Your task to perform on an android device: Go to calendar. Show me events next week Image 0: 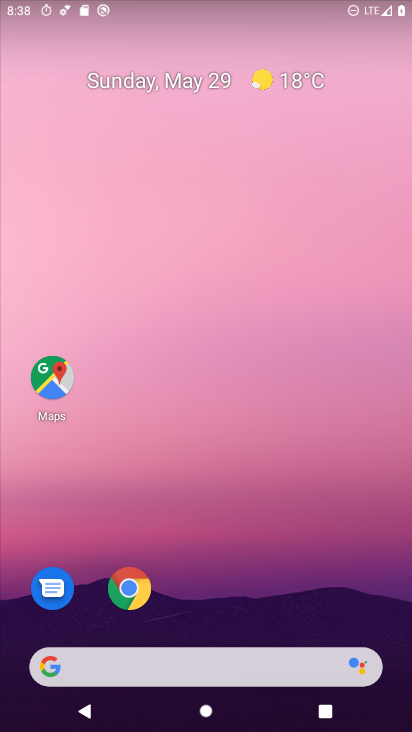
Step 0: drag from (217, 495) to (303, 101)
Your task to perform on an android device: Go to calendar. Show me events next week Image 1: 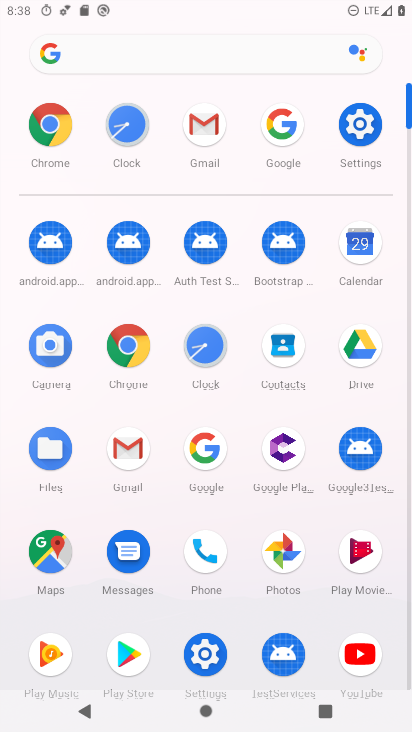
Step 1: click (353, 234)
Your task to perform on an android device: Go to calendar. Show me events next week Image 2: 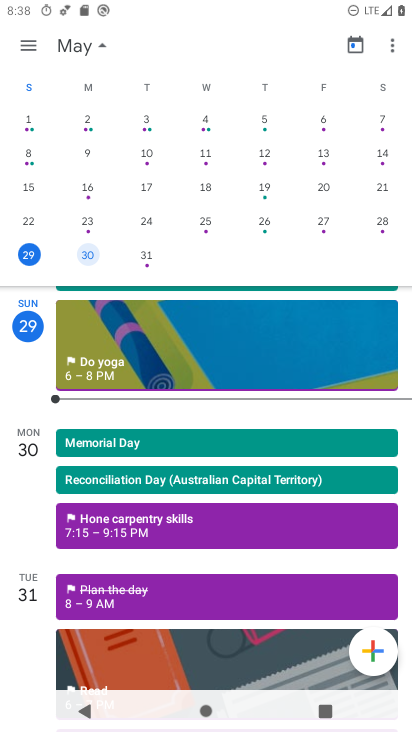
Step 2: click (144, 257)
Your task to perform on an android device: Go to calendar. Show me events next week Image 3: 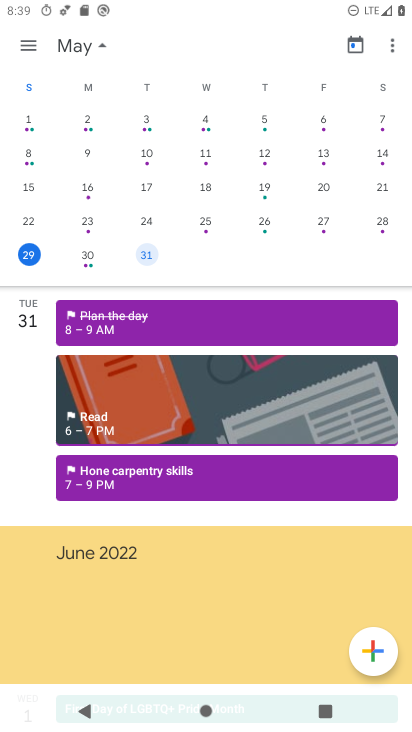
Step 3: task complete